Your task to perform on an android device: turn on wifi Image 0: 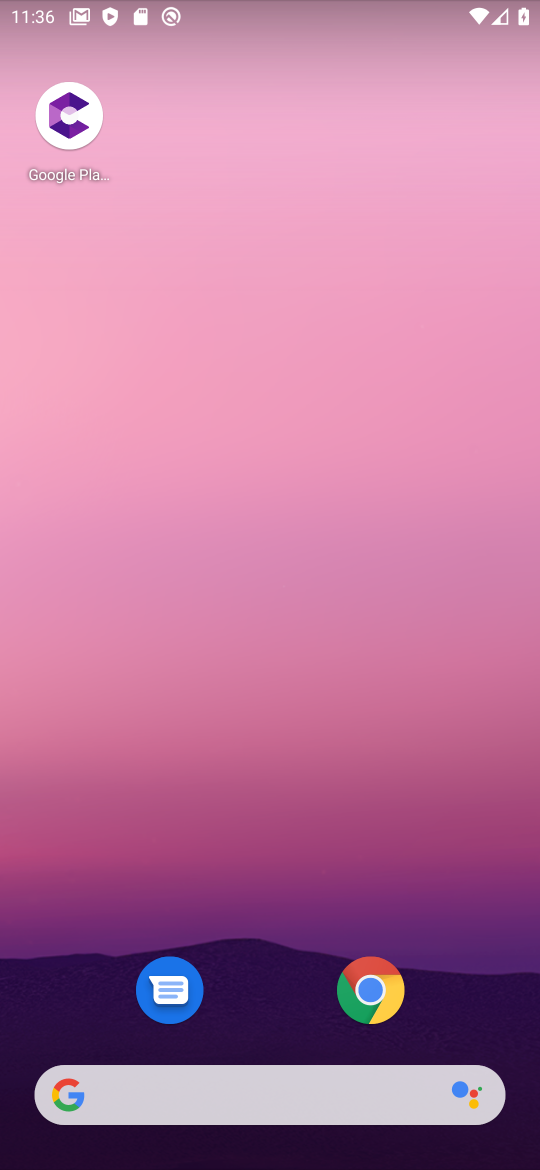
Step 0: drag from (499, 984) to (418, 160)
Your task to perform on an android device: turn on wifi Image 1: 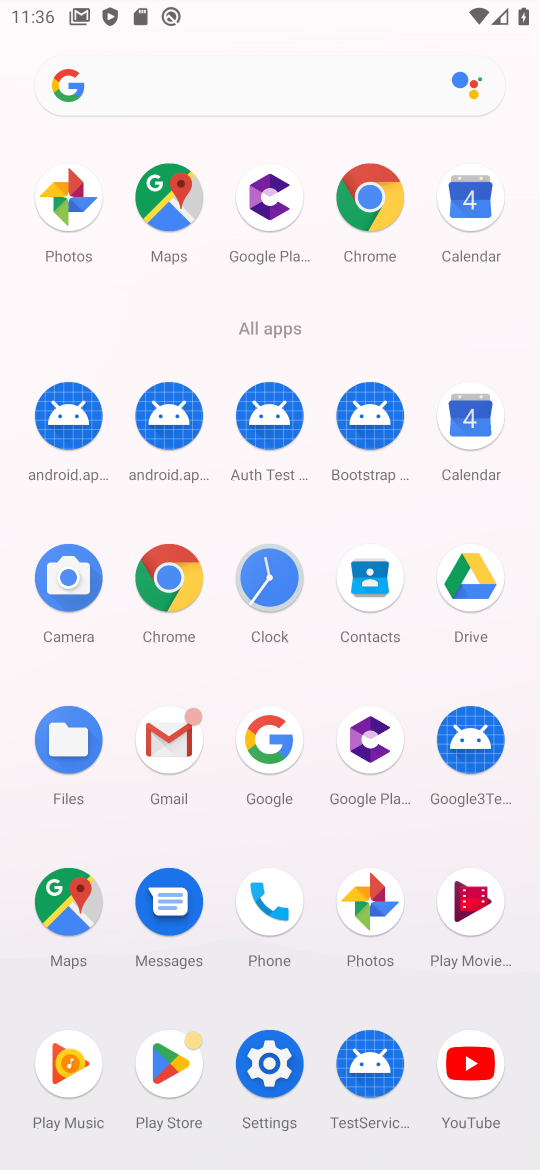
Step 1: click (286, 1068)
Your task to perform on an android device: turn on wifi Image 2: 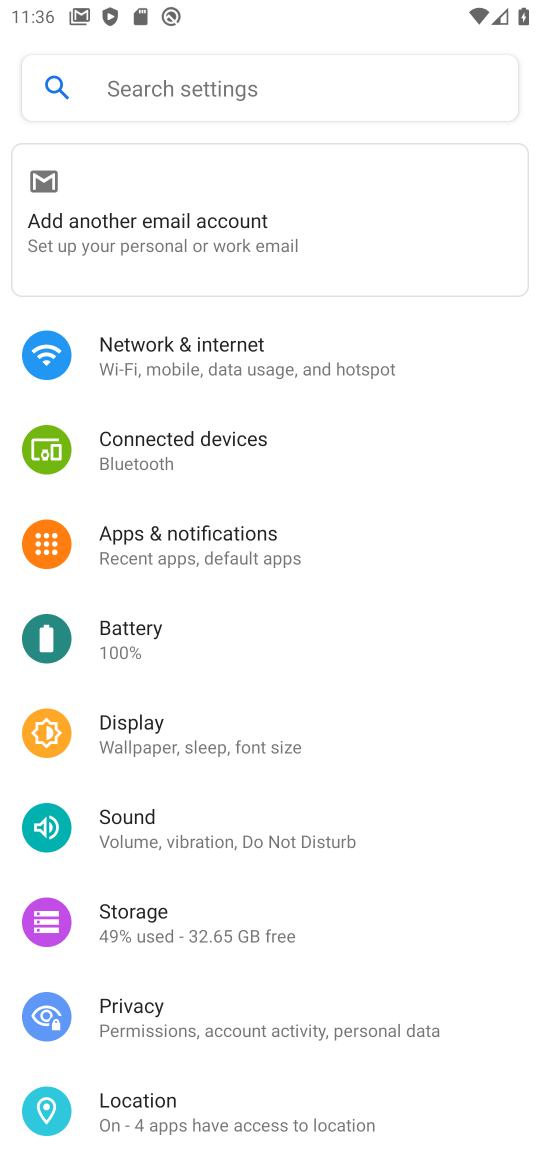
Step 2: click (224, 357)
Your task to perform on an android device: turn on wifi Image 3: 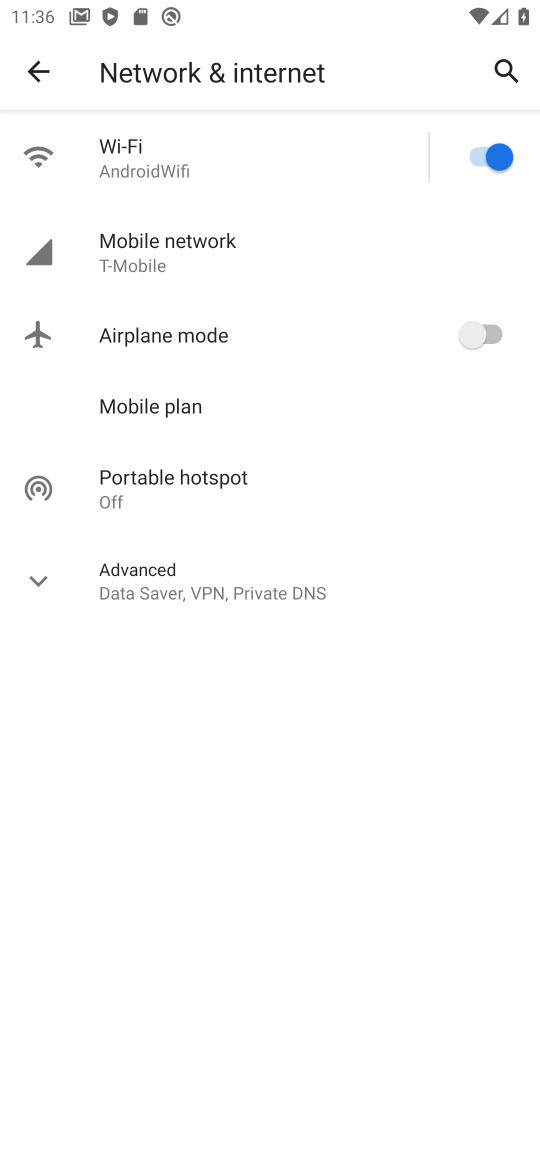
Step 3: task complete